Your task to perform on an android device: Open sound settings Image 0: 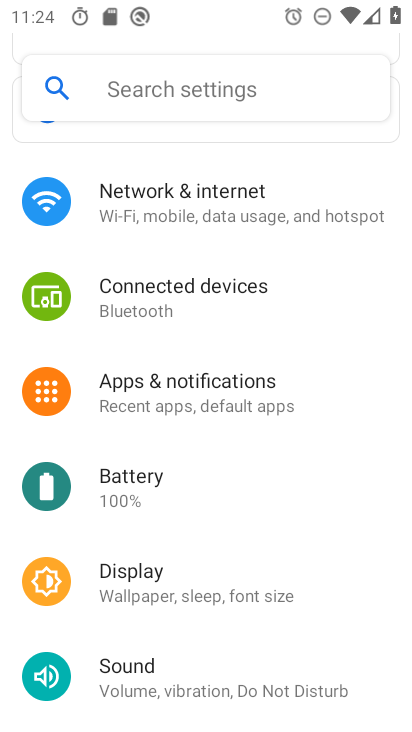
Step 0: drag from (323, 546) to (324, 370)
Your task to perform on an android device: Open sound settings Image 1: 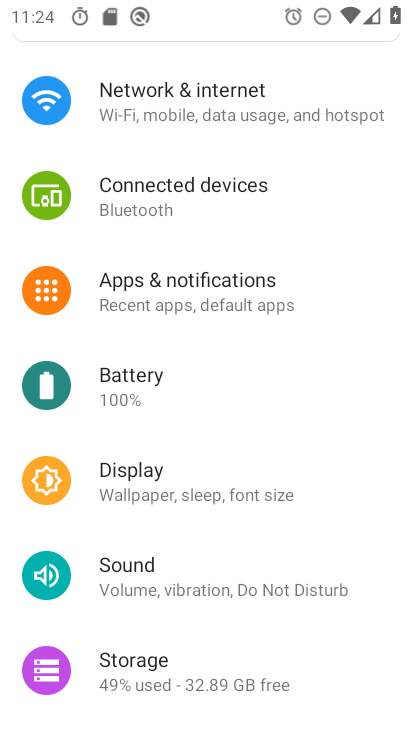
Step 1: click (112, 583)
Your task to perform on an android device: Open sound settings Image 2: 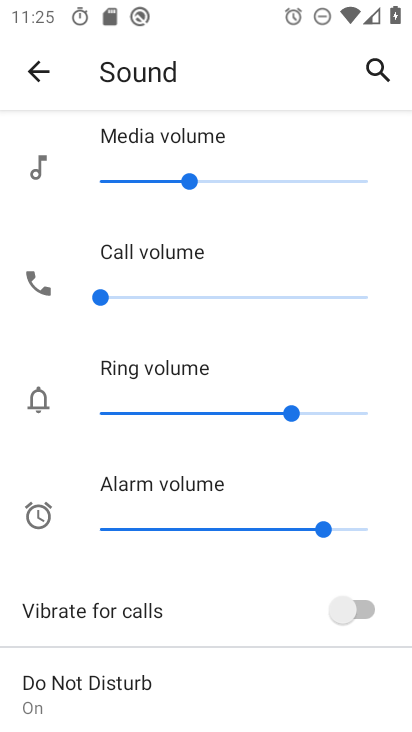
Step 2: task complete